Your task to perform on an android device: change the upload size in google photos Image 0: 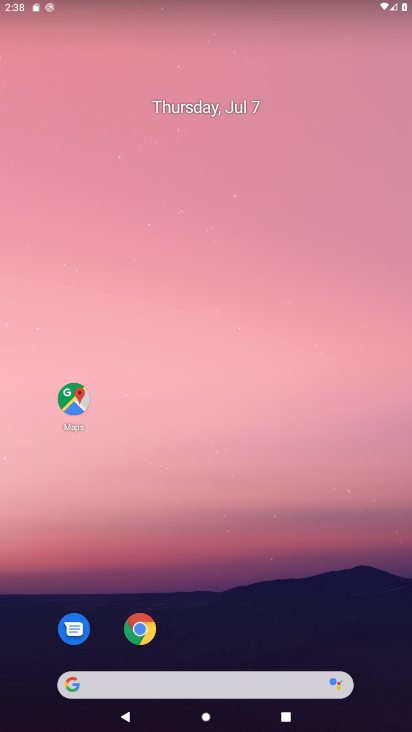
Step 0: drag from (336, 561) to (229, 20)
Your task to perform on an android device: change the upload size in google photos Image 1: 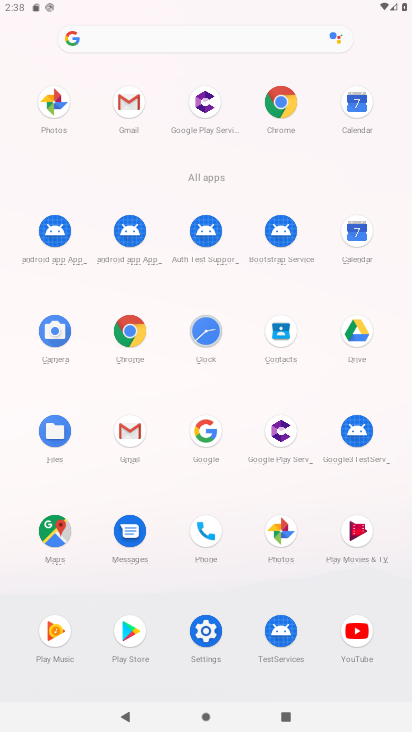
Step 1: click (278, 531)
Your task to perform on an android device: change the upload size in google photos Image 2: 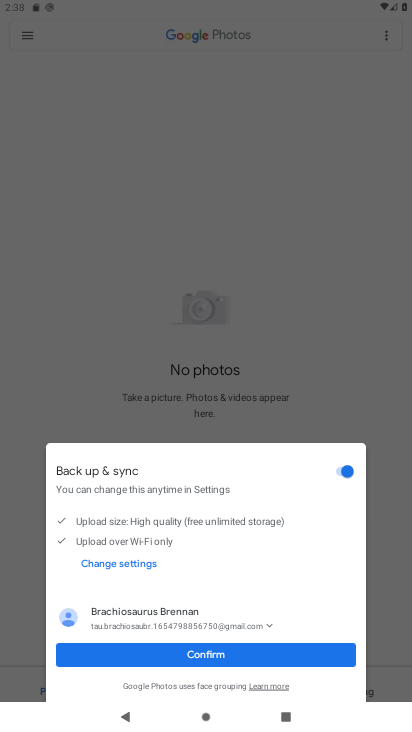
Step 2: click (268, 655)
Your task to perform on an android device: change the upload size in google photos Image 3: 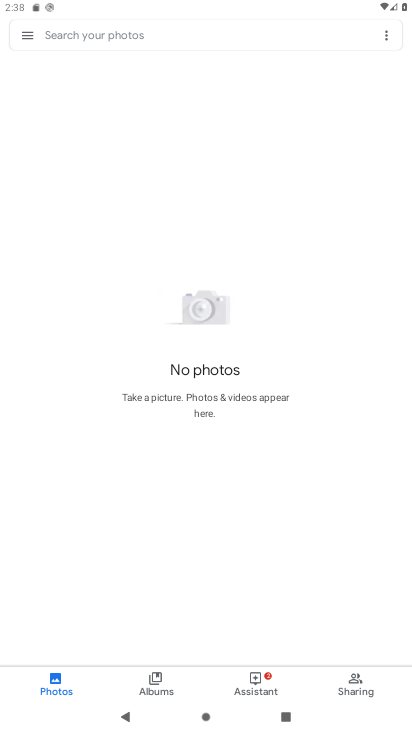
Step 3: click (26, 40)
Your task to perform on an android device: change the upload size in google photos Image 4: 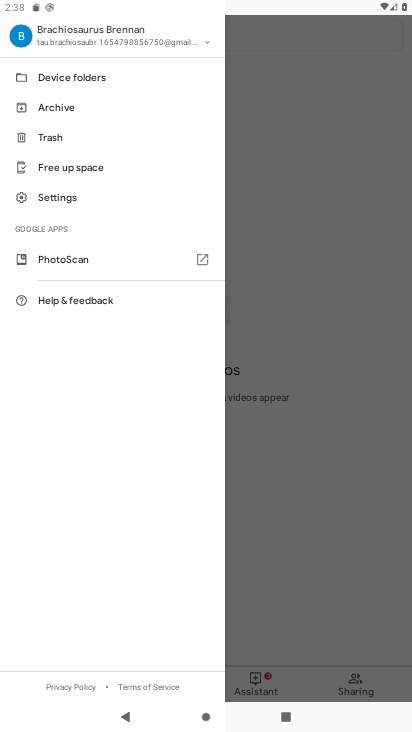
Step 4: click (59, 201)
Your task to perform on an android device: change the upload size in google photos Image 5: 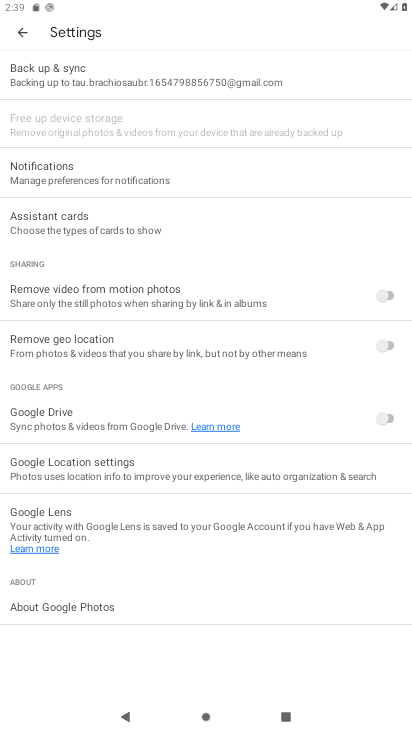
Step 5: click (129, 83)
Your task to perform on an android device: change the upload size in google photos Image 6: 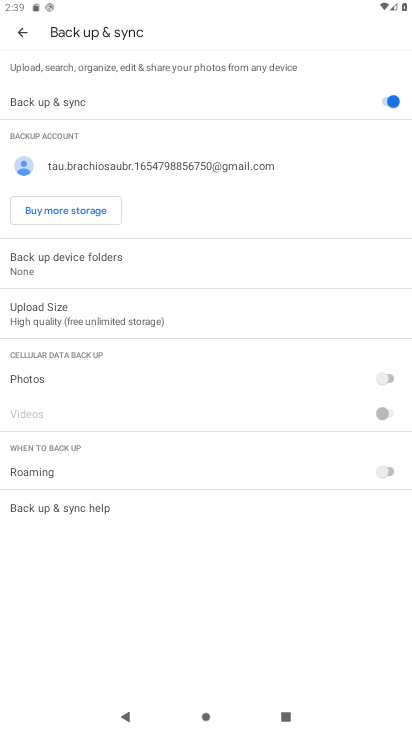
Step 6: click (171, 310)
Your task to perform on an android device: change the upload size in google photos Image 7: 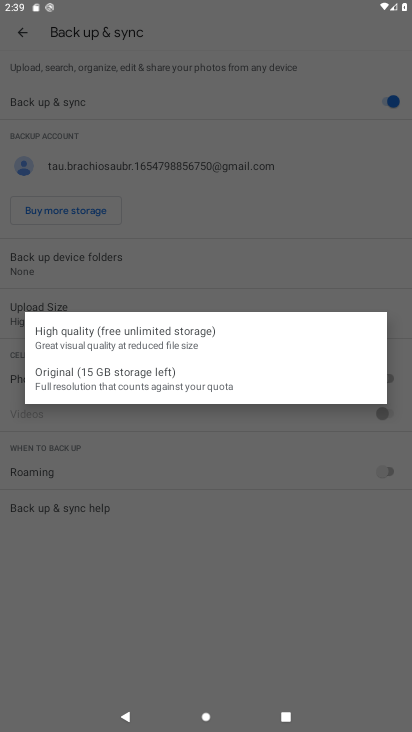
Step 7: click (174, 368)
Your task to perform on an android device: change the upload size in google photos Image 8: 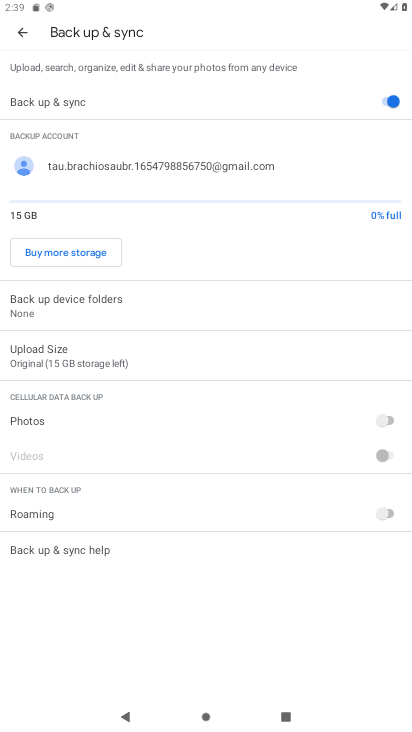
Step 8: task complete